Your task to perform on an android device: Search for pizza restaurants on Maps Image 0: 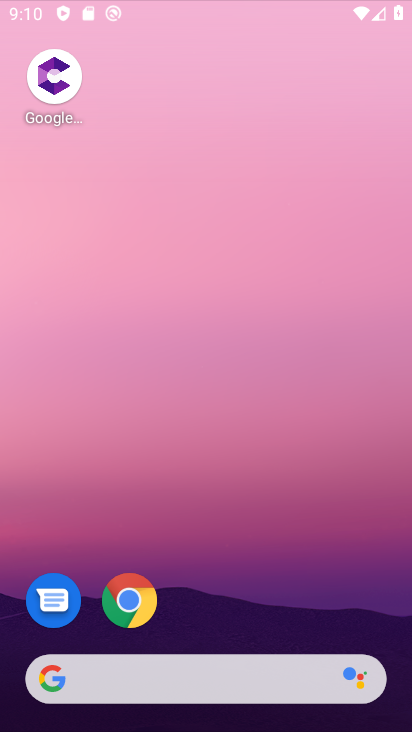
Step 0: press home button
Your task to perform on an android device: Search for pizza restaurants on Maps Image 1: 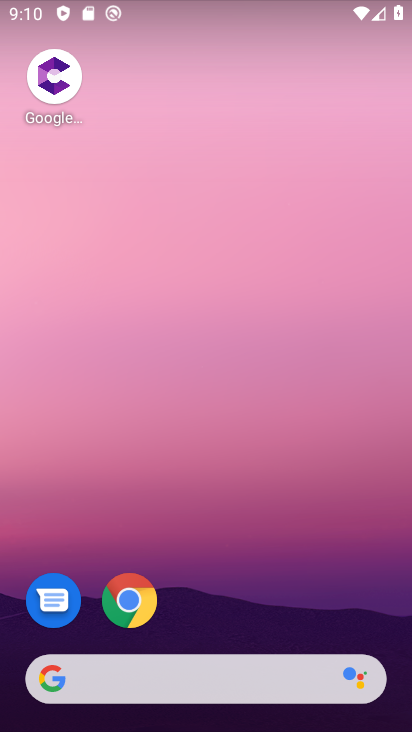
Step 1: drag from (199, 629) to (205, 0)
Your task to perform on an android device: Search for pizza restaurants on Maps Image 2: 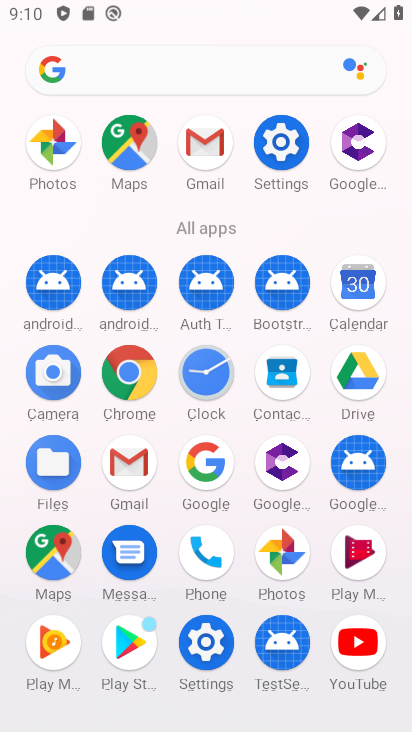
Step 2: click (136, 164)
Your task to perform on an android device: Search for pizza restaurants on Maps Image 3: 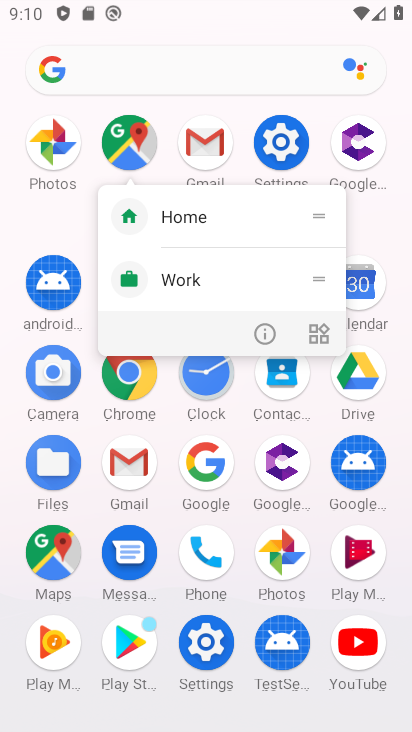
Step 3: click (126, 148)
Your task to perform on an android device: Search for pizza restaurants on Maps Image 4: 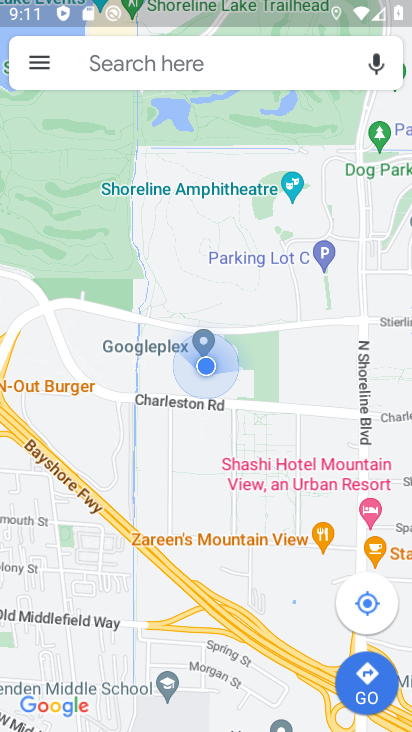
Step 4: click (220, 60)
Your task to perform on an android device: Search for pizza restaurants on Maps Image 5: 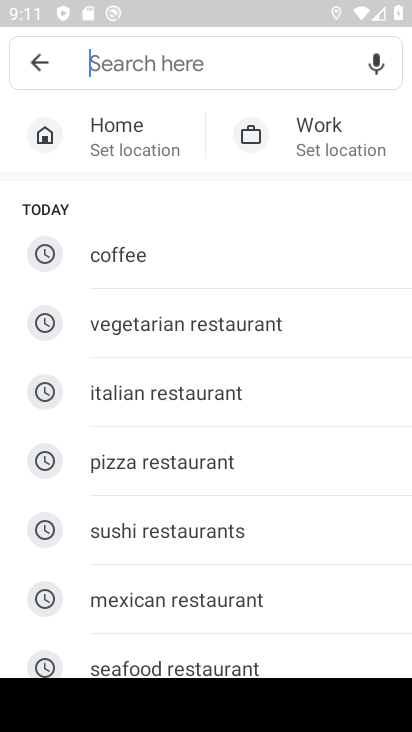
Step 5: click (163, 472)
Your task to perform on an android device: Search for pizza restaurants on Maps Image 6: 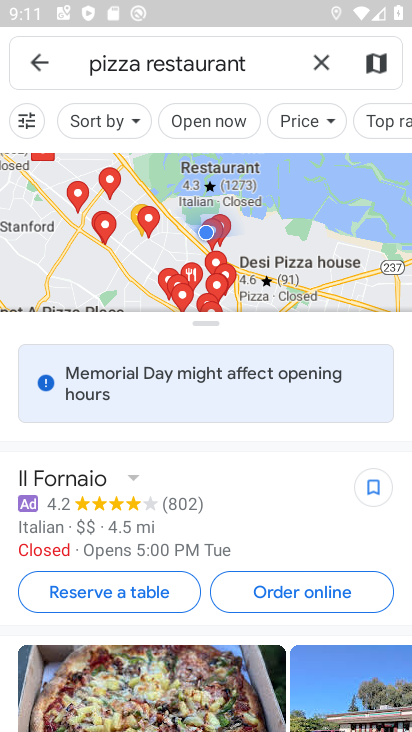
Step 6: task complete